Your task to perform on an android device: star an email in the gmail app Image 0: 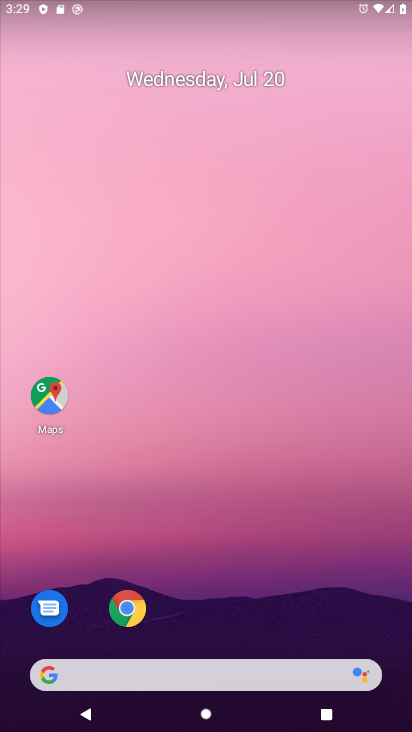
Step 0: click (291, 151)
Your task to perform on an android device: star an email in the gmail app Image 1: 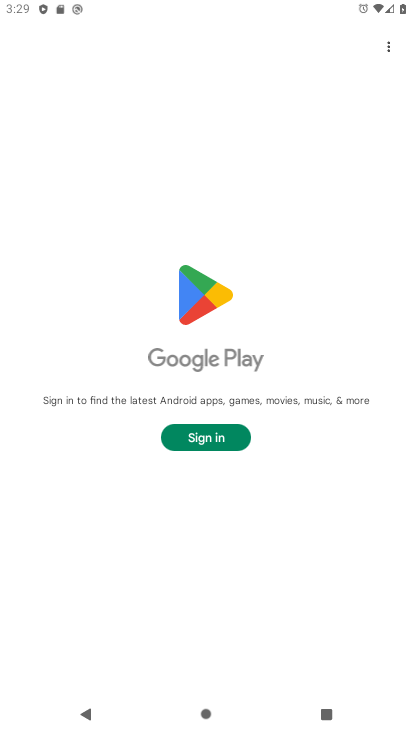
Step 1: press home button
Your task to perform on an android device: star an email in the gmail app Image 2: 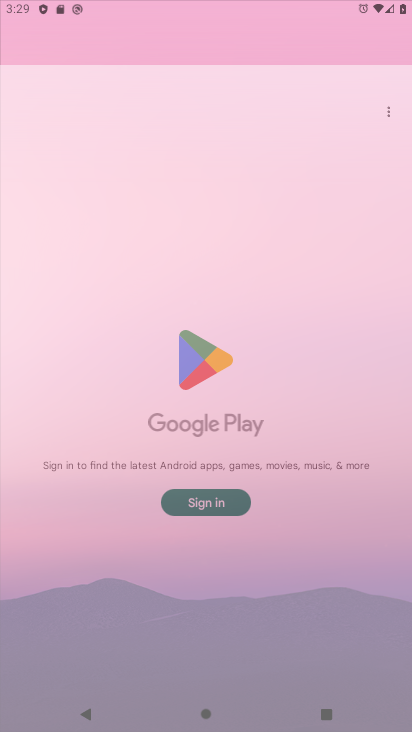
Step 2: drag from (239, 543) to (382, 114)
Your task to perform on an android device: star an email in the gmail app Image 3: 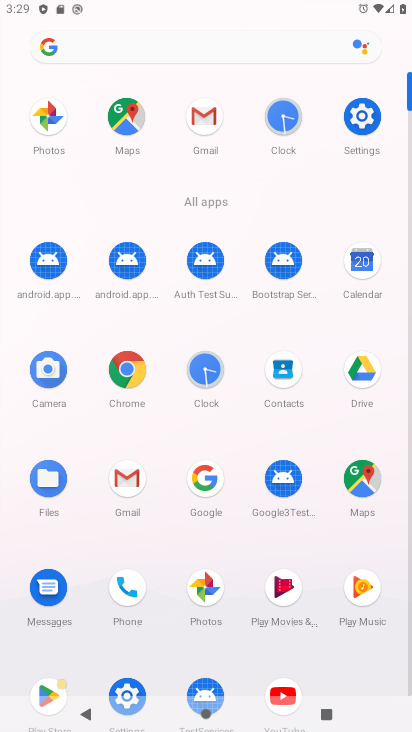
Step 3: click (129, 481)
Your task to perform on an android device: star an email in the gmail app Image 4: 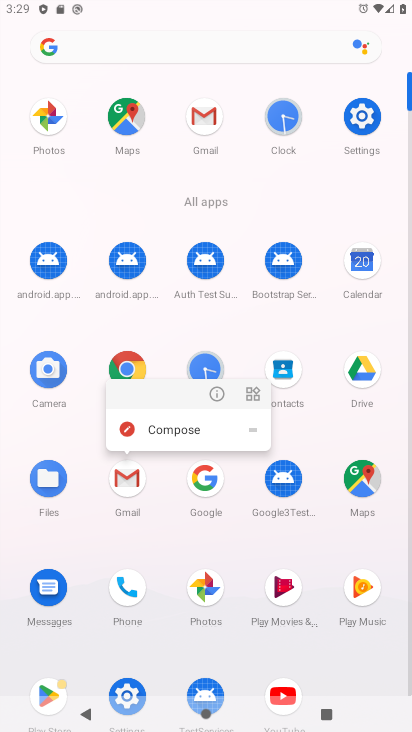
Step 4: click (218, 393)
Your task to perform on an android device: star an email in the gmail app Image 5: 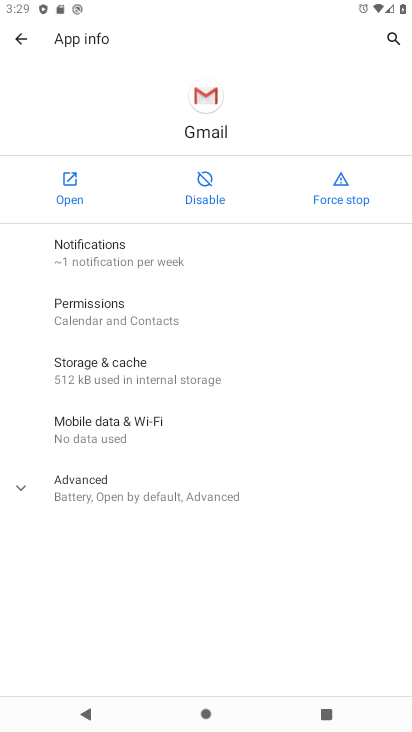
Step 5: click (65, 176)
Your task to perform on an android device: star an email in the gmail app Image 6: 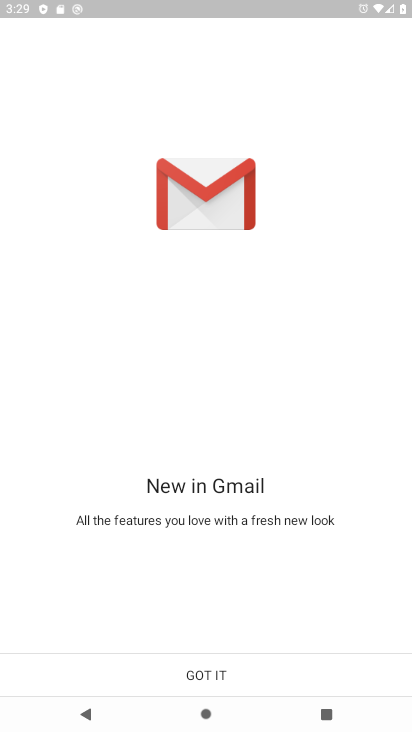
Step 6: click (179, 661)
Your task to perform on an android device: star an email in the gmail app Image 7: 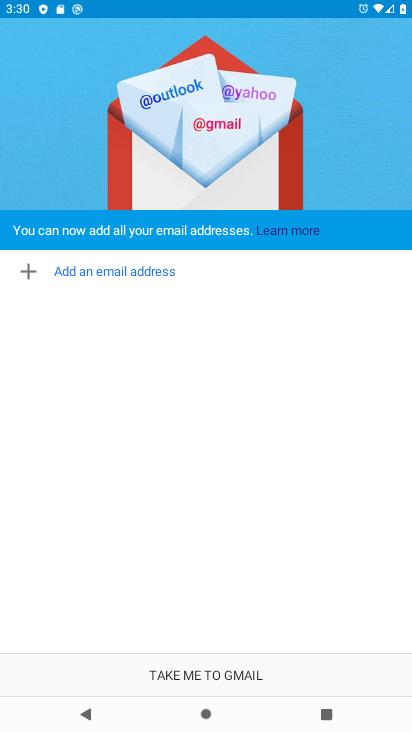
Step 7: click (209, 659)
Your task to perform on an android device: star an email in the gmail app Image 8: 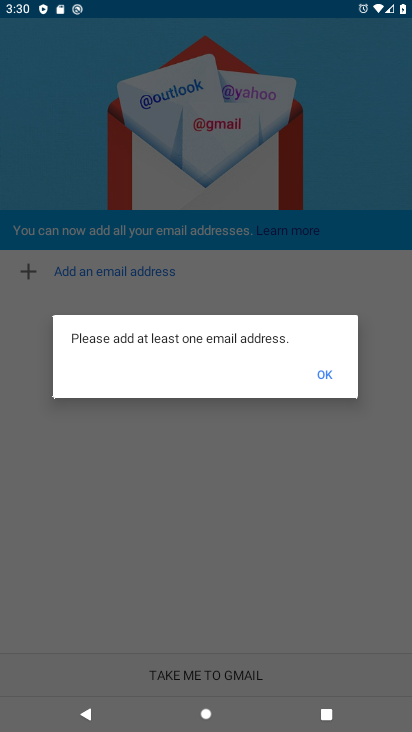
Step 8: task complete